Your task to perform on an android device: turn off javascript in the chrome app Image 0: 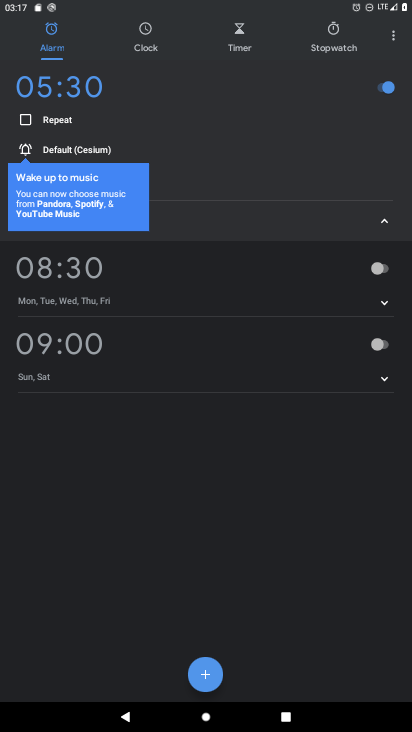
Step 0: press home button
Your task to perform on an android device: turn off javascript in the chrome app Image 1: 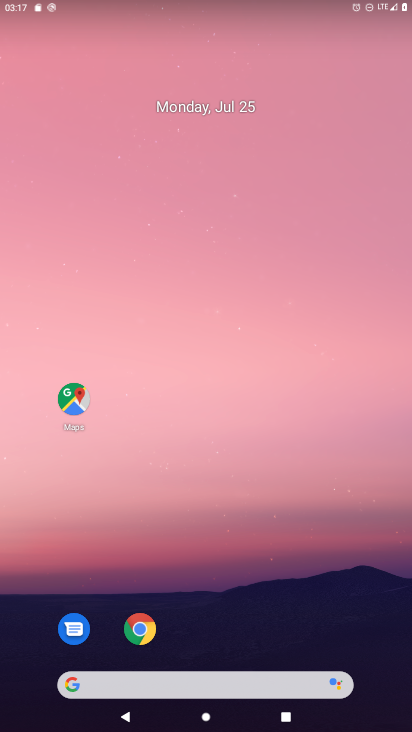
Step 1: click (134, 621)
Your task to perform on an android device: turn off javascript in the chrome app Image 2: 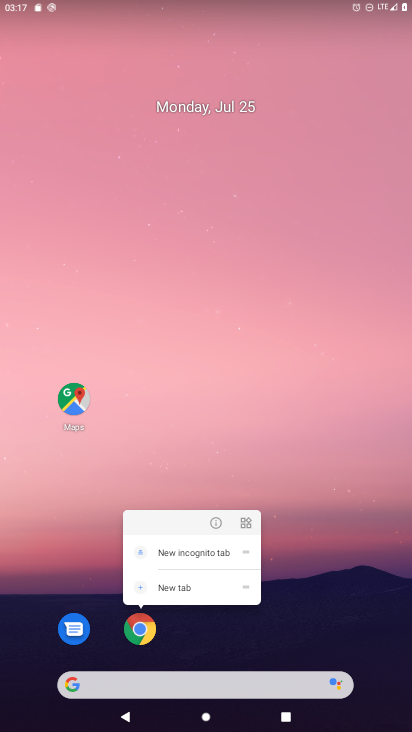
Step 2: click (148, 634)
Your task to perform on an android device: turn off javascript in the chrome app Image 3: 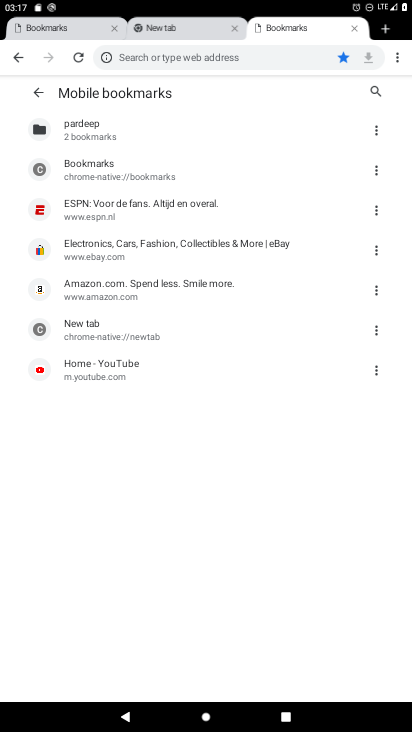
Step 3: drag from (390, 53) to (281, 261)
Your task to perform on an android device: turn off javascript in the chrome app Image 4: 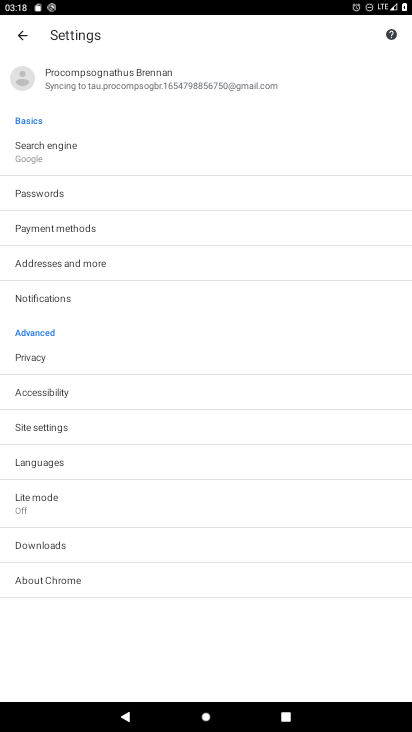
Step 4: click (66, 428)
Your task to perform on an android device: turn off javascript in the chrome app Image 5: 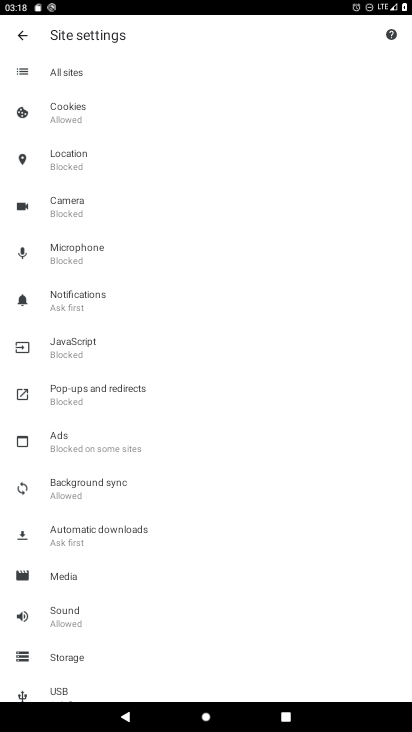
Step 5: click (66, 342)
Your task to perform on an android device: turn off javascript in the chrome app Image 6: 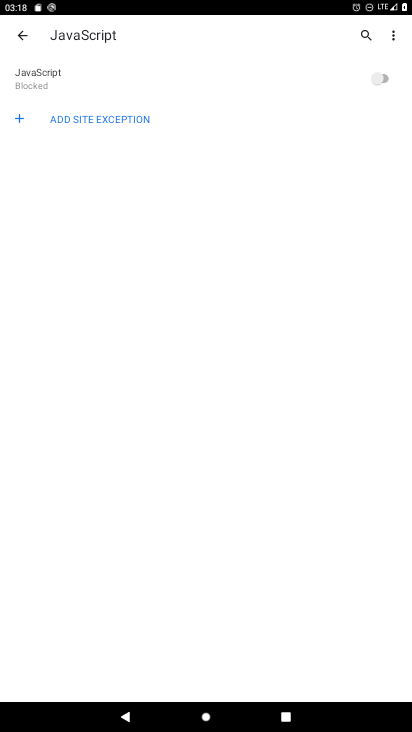
Step 6: task complete